Your task to perform on an android device: check google app version Image 0: 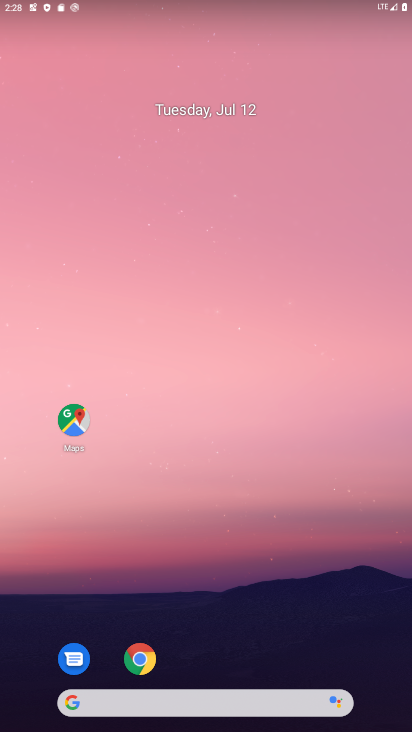
Step 0: drag from (227, 711) to (231, 188)
Your task to perform on an android device: check google app version Image 1: 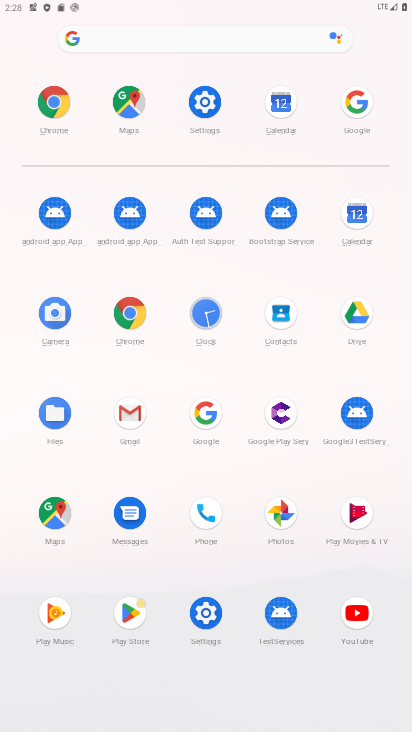
Step 1: click (206, 414)
Your task to perform on an android device: check google app version Image 2: 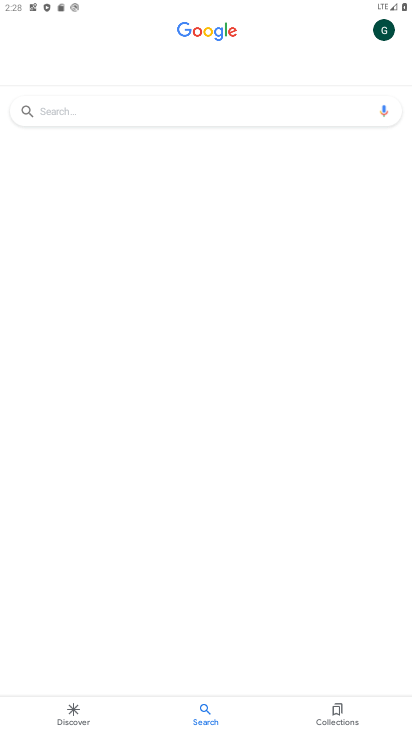
Step 2: click (380, 29)
Your task to perform on an android device: check google app version Image 3: 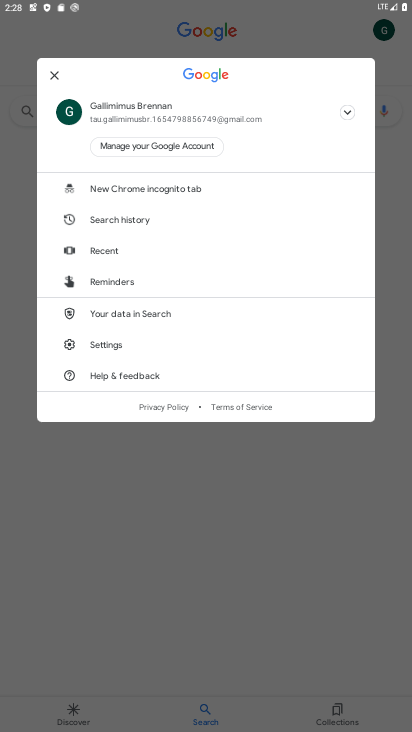
Step 3: click (108, 344)
Your task to perform on an android device: check google app version Image 4: 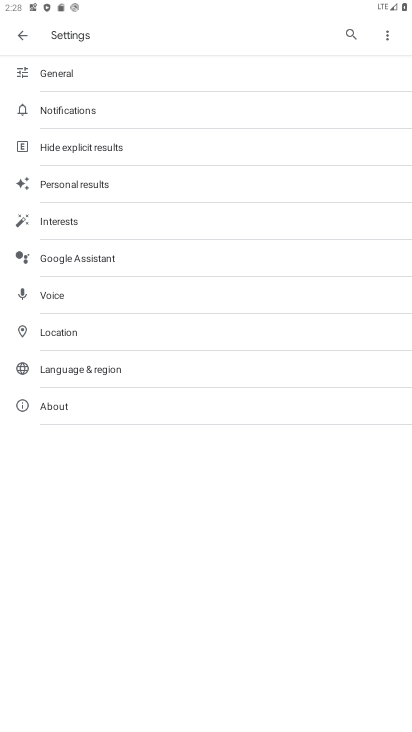
Step 4: click (57, 403)
Your task to perform on an android device: check google app version Image 5: 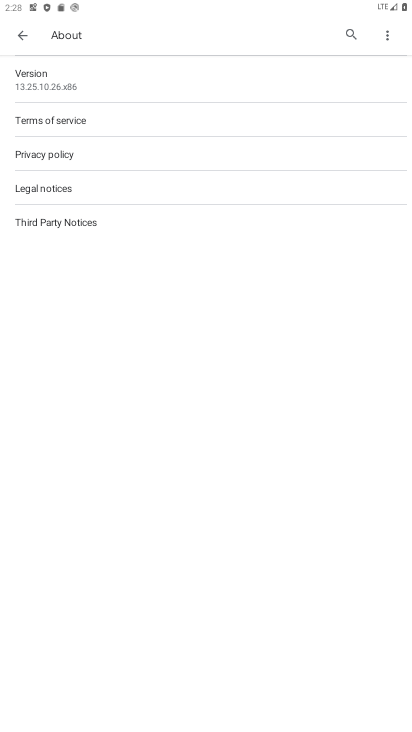
Step 5: click (48, 72)
Your task to perform on an android device: check google app version Image 6: 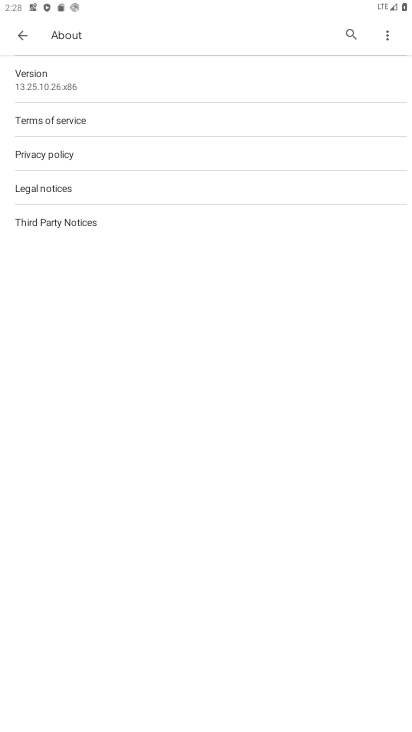
Step 6: task complete